Your task to perform on an android device: all mails in gmail Image 0: 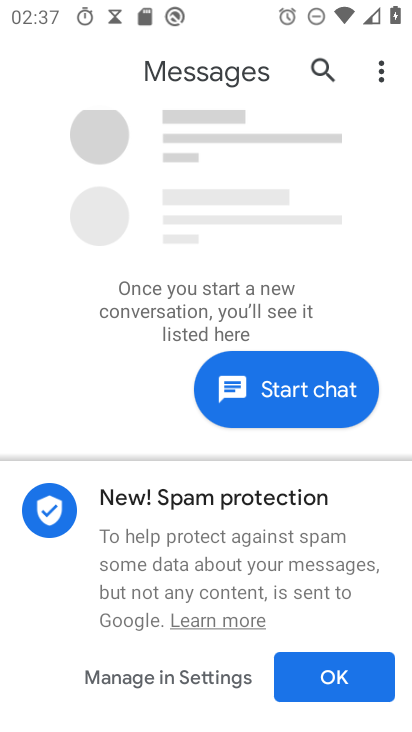
Step 0: press home button
Your task to perform on an android device: all mails in gmail Image 1: 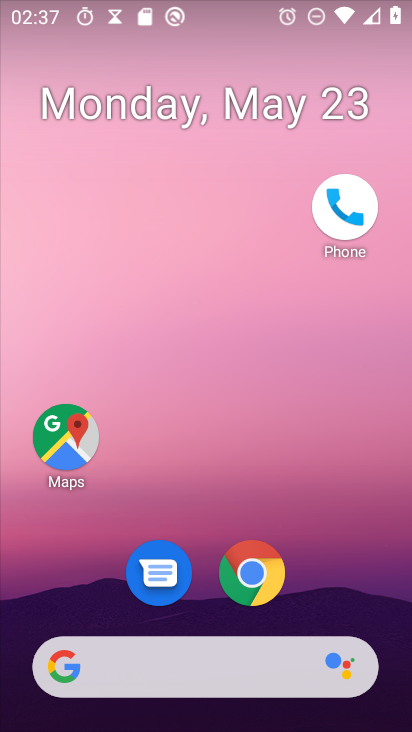
Step 1: drag from (134, 664) to (293, 135)
Your task to perform on an android device: all mails in gmail Image 2: 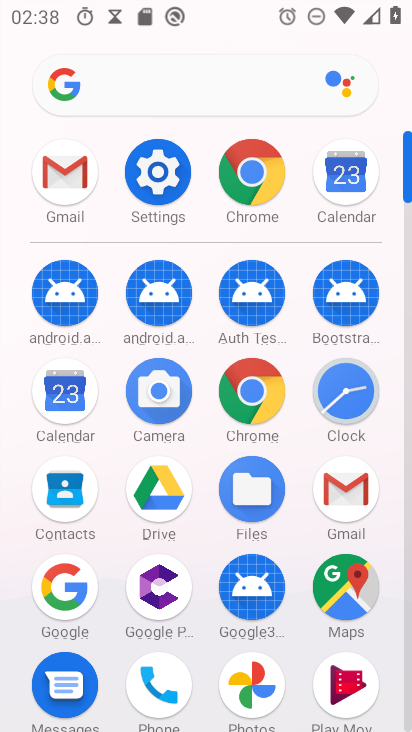
Step 2: click (80, 176)
Your task to perform on an android device: all mails in gmail Image 3: 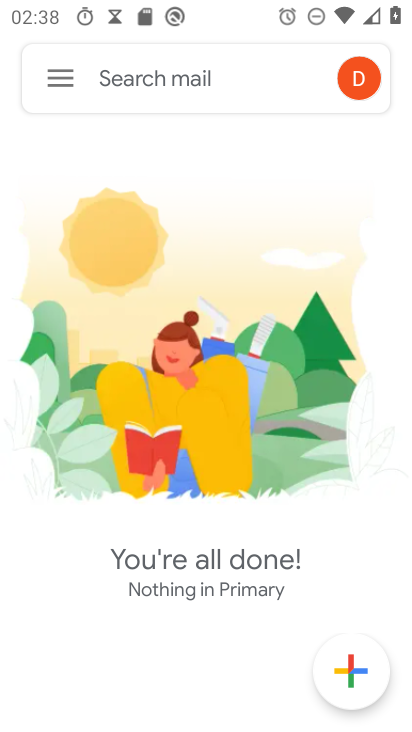
Step 3: click (60, 71)
Your task to perform on an android device: all mails in gmail Image 4: 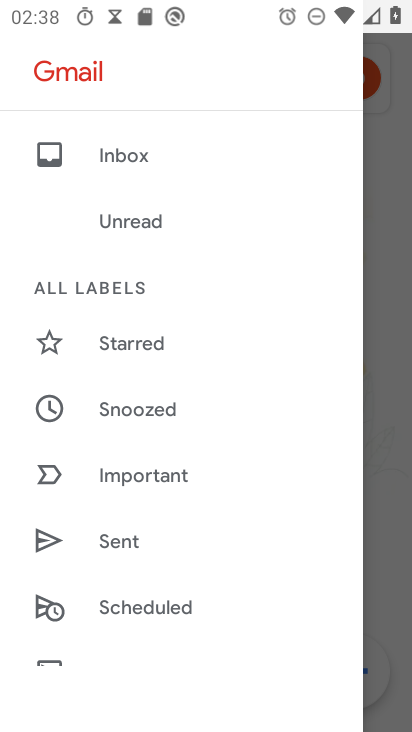
Step 4: drag from (253, 571) to (298, 178)
Your task to perform on an android device: all mails in gmail Image 5: 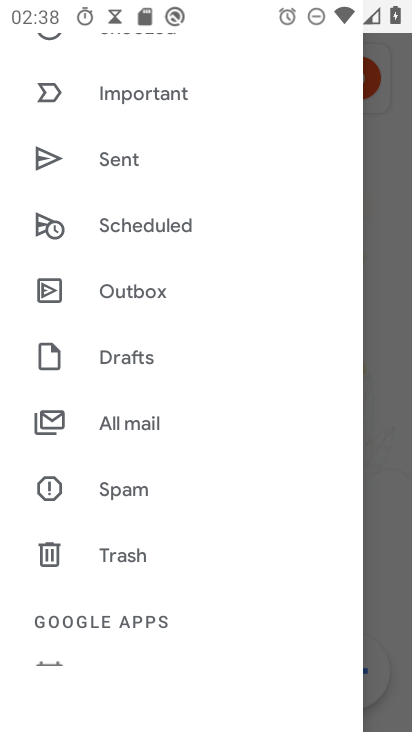
Step 5: click (130, 429)
Your task to perform on an android device: all mails in gmail Image 6: 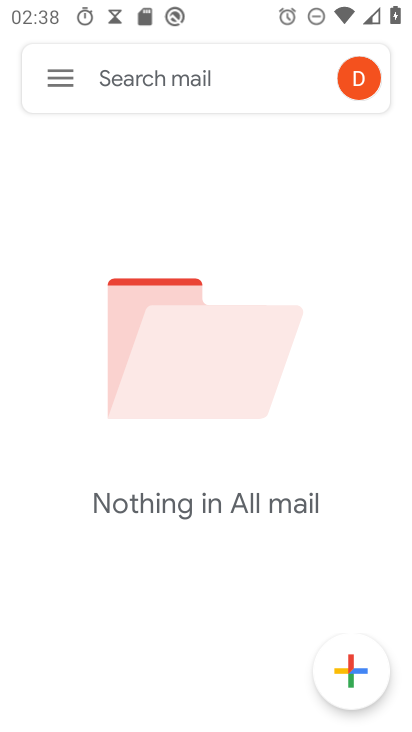
Step 6: task complete